Your task to perform on an android device: Show me recent news Image 0: 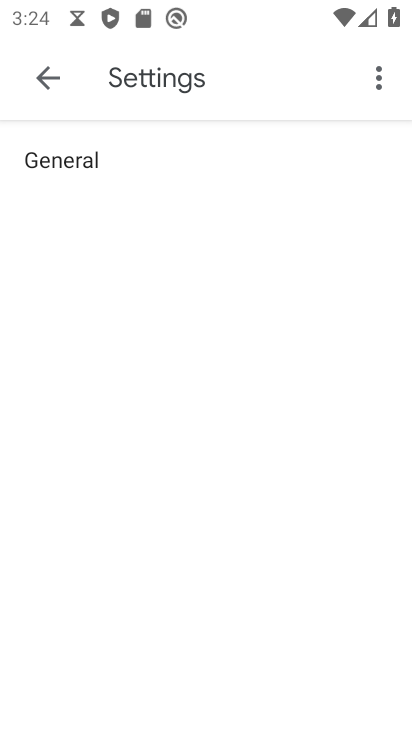
Step 0: press back button
Your task to perform on an android device: Show me recent news Image 1: 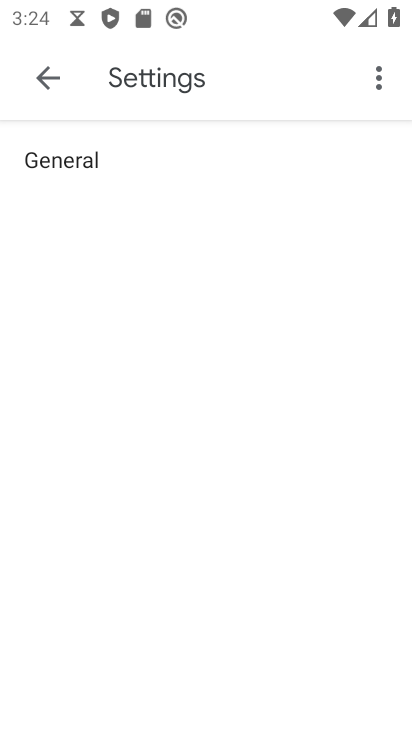
Step 1: press home button
Your task to perform on an android device: Show me recent news Image 2: 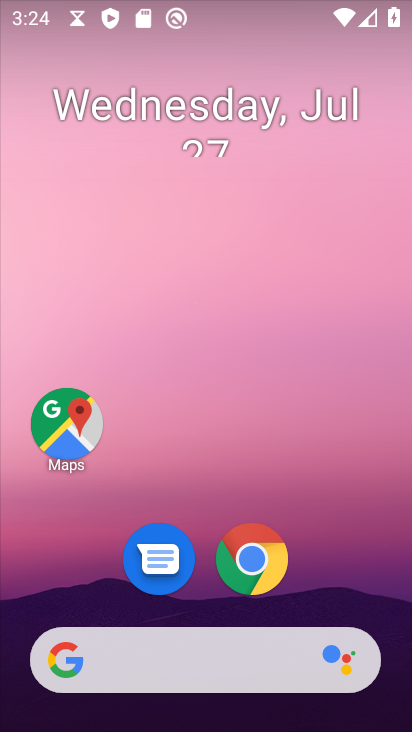
Step 2: click (154, 675)
Your task to perform on an android device: Show me recent news Image 3: 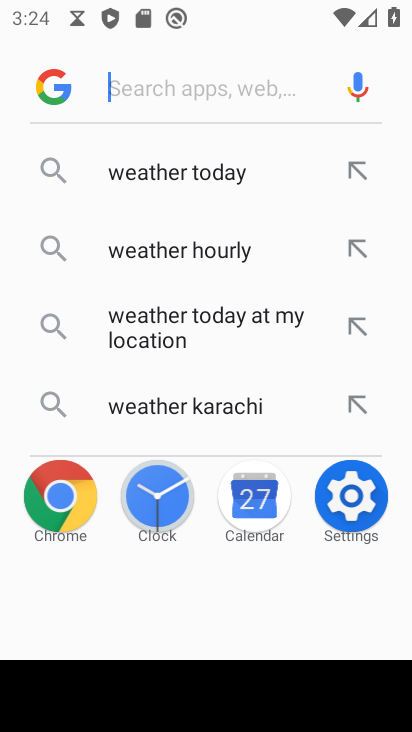
Step 3: click (168, 92)
Your task to perform on an android device: Show me recent news Image 4: 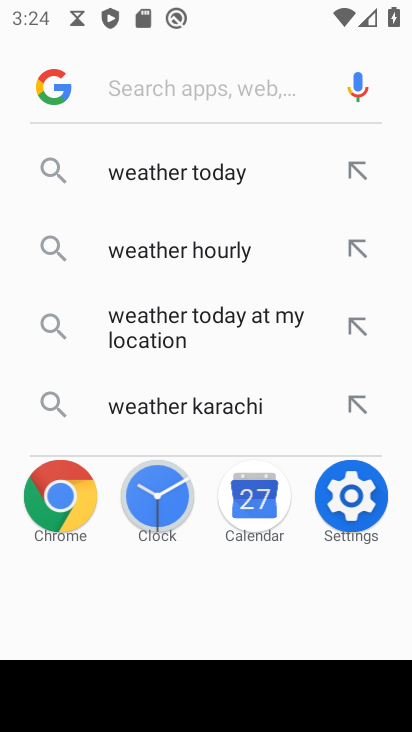
Step 4: type "recent news"
Your task to perform on an android device: Show me recent news Image 5: 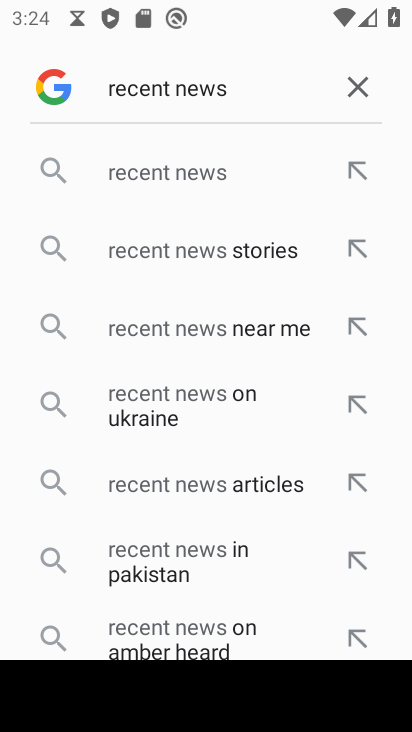
Step 5: click (194, 186)
Your task to perform on an android device: Show me recent news Image 6: 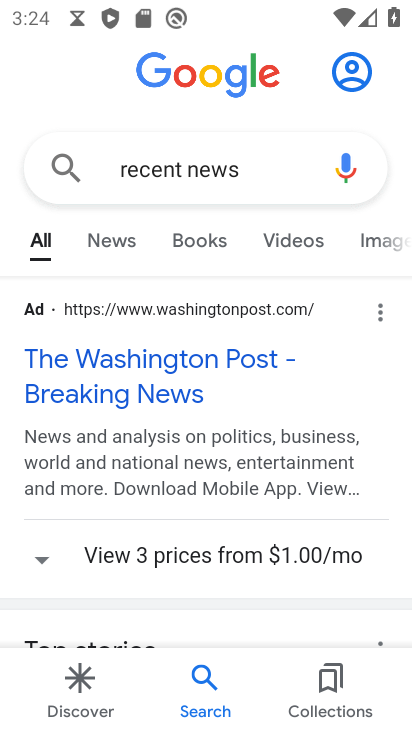
Step 6: task complete